Your task to perform on an android device: Go to settings Image 0: 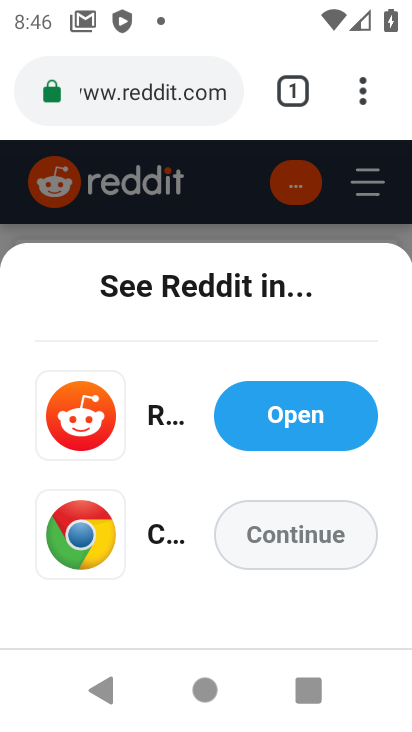
Step 0: press home button
Your task to perform on an android device: Go to settings Image 1: 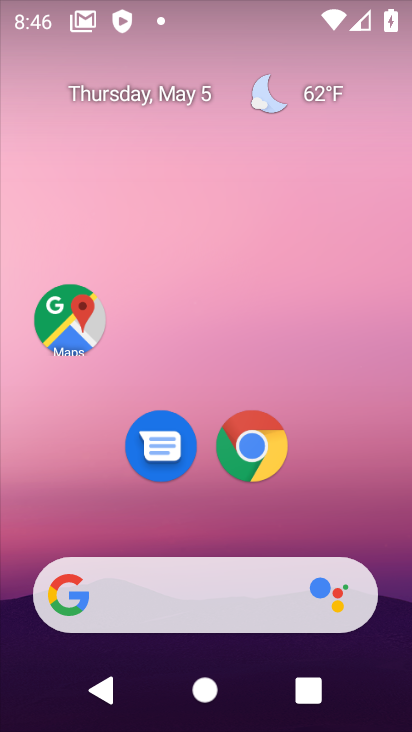
Step 1: drag from (303, 642) to (273, 332)
Your task to perform on an android device: Go to settings Image 2: 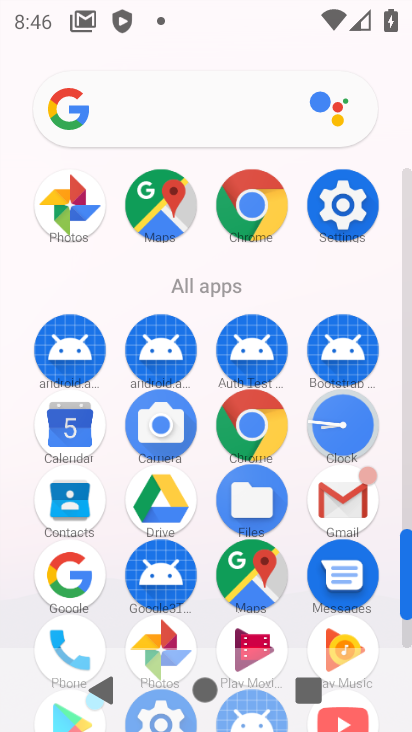
Step 2: click (358, 214)
Your task to perform on an android device: Go to settings Image 3: 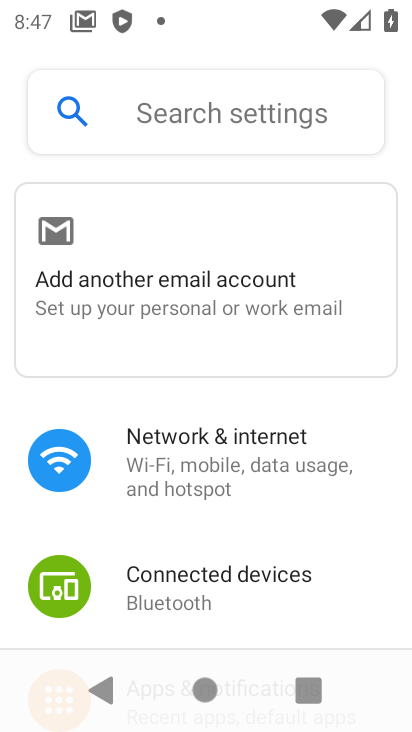
Step 3: task complete